Your task to perform on an android device: Go to settings Image 0: 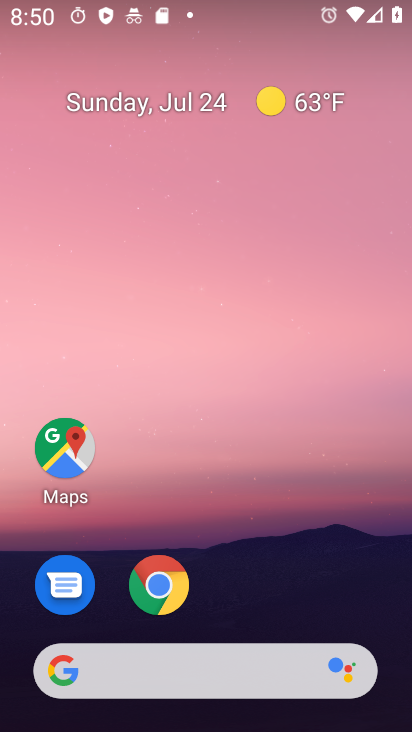
Step 0: drag from (257, 567) to (241, 173)
Your task to perform on an android device: Go to settings Image 1: 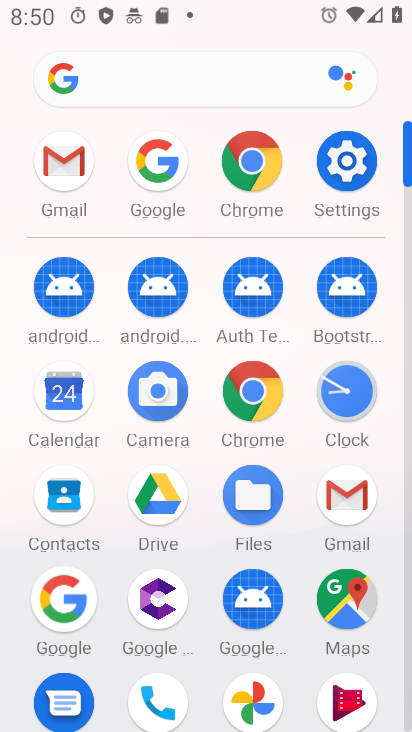
Step 1: click (331, 164)
Your task to perform on an android device: Go to settings Image 2: 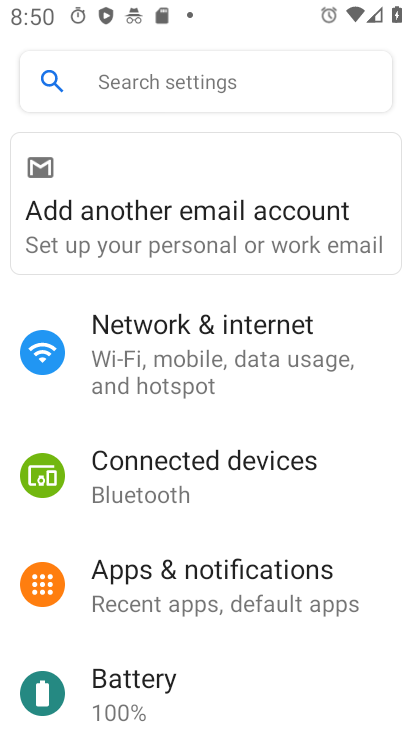
Step 2: task complete